Your task to perform on an android device: Open Amazon Image 0: 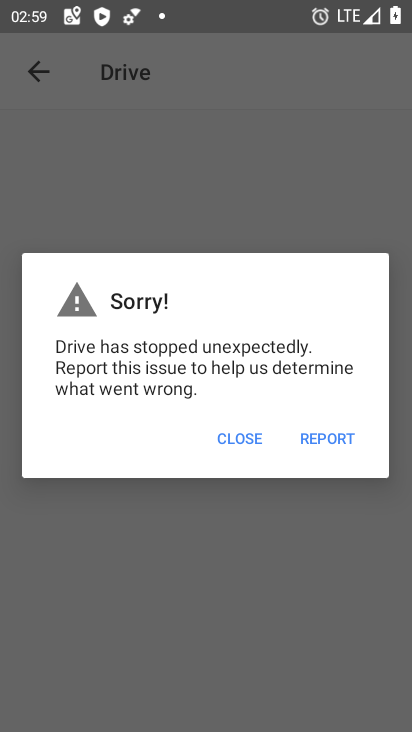
Step 0: press home button
Your task to perform on an android device: Open Amazon Image 1: 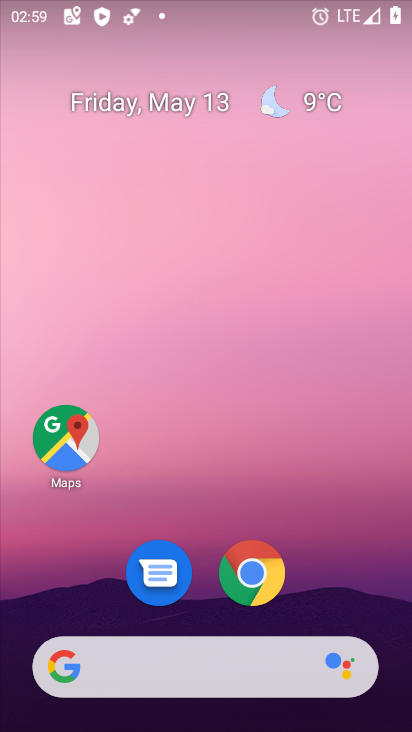
Step 1: drag from (209, 502) to (186, 201)
Your task to perform on an android device: Open Amazon Image 2: 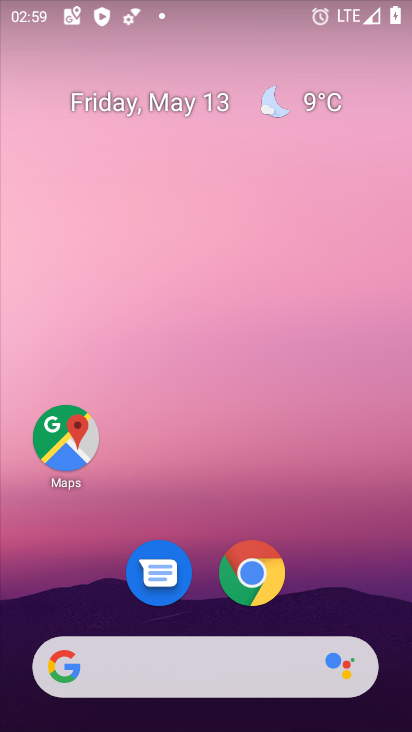
Step 2: drag from (199, 511) to (167, 101)
Your task to perform on an android device: Open Amazon Image 3: 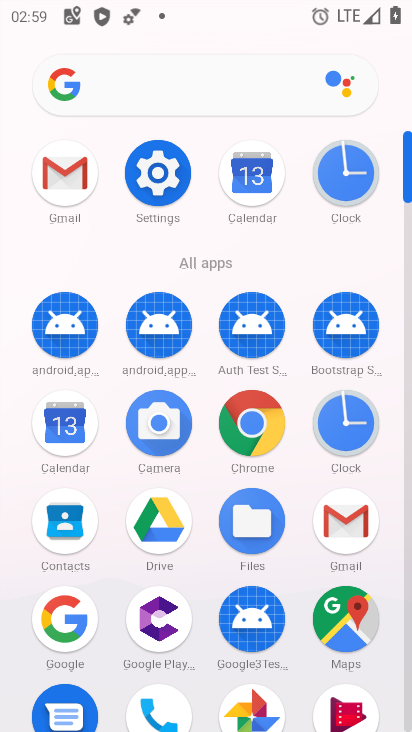
Step 3: drag from (195, 510) to (193, 250)
Your task to perform on an android device: Open Amazon Image 4: 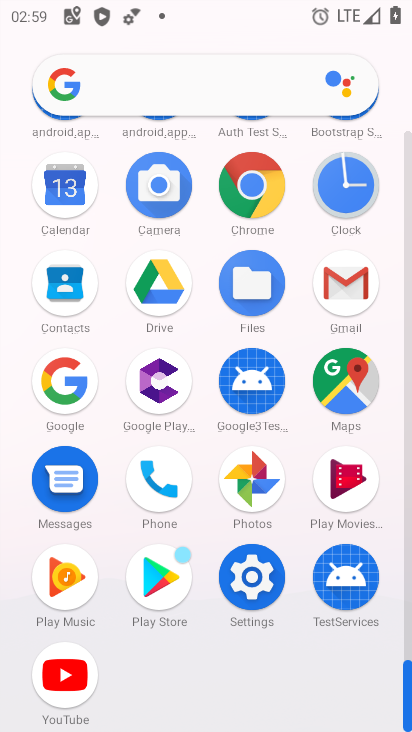
Step 4: click (59, 375)
Your task to perform on an android device: Open Amazon Image 5: 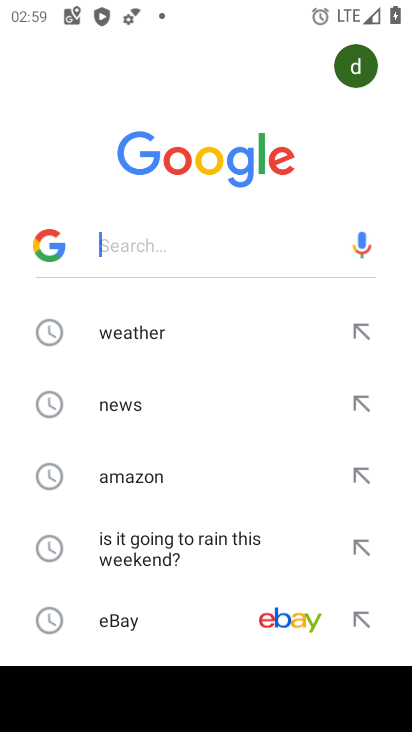
Step 5: click (128, 476)
Your task to perform on an android device: Open Amazon Image 6: 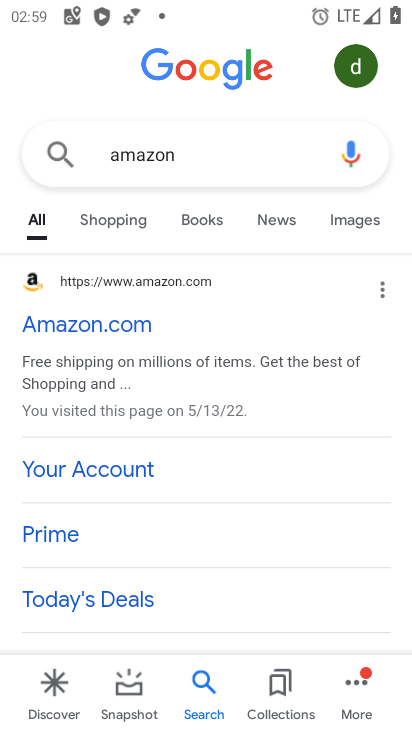
Step 6: click (88, 326)
Your task to perform on an android device: Open Amazon Image 7: 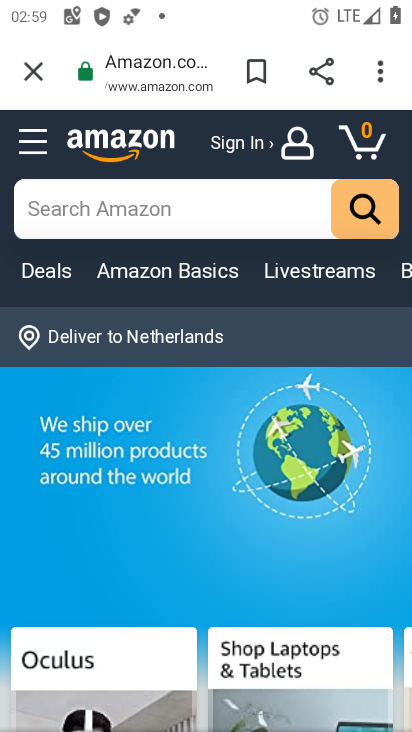
Step 7: task complete